Your task to perform on an android device: Open Youtube and go to the subscriptions tab Image 0: 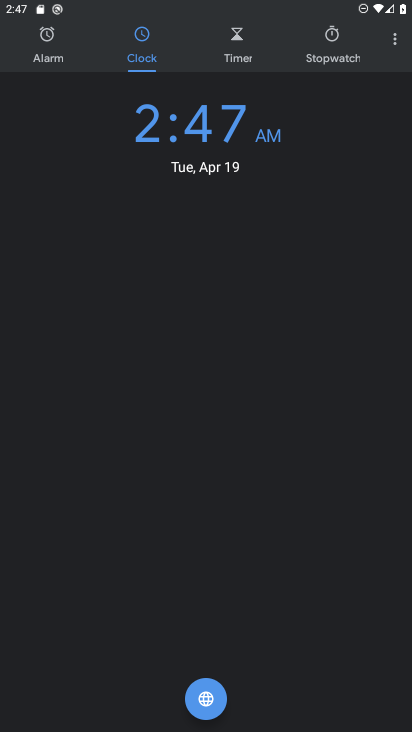
Step 0: press home button
Your task to perform on an android device: Open Youtube and go to the subscriptions tab Image 1: 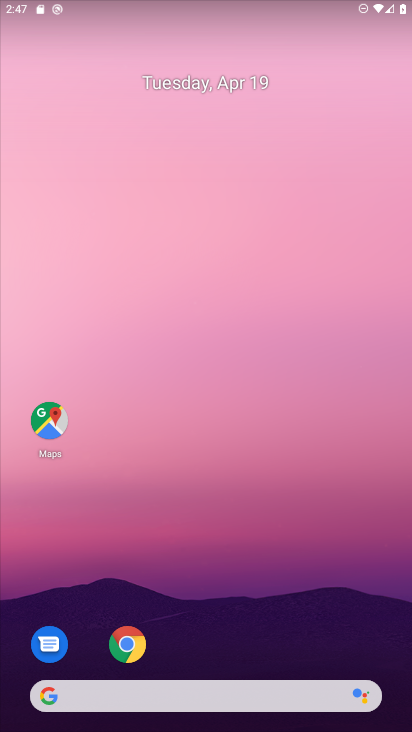
Step 1: drag from (232, 565) to (140, 100)
Your task to perform on an android device: Open Youtube and go to the subscriptions tab Image 2: 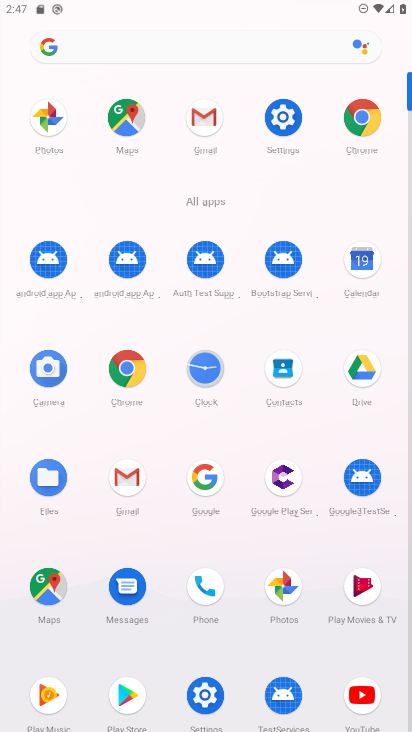
Step 2: click (360, 699)
Your task to perform on an android device: Open Youtube and go to the subscriptions tab Image 3: 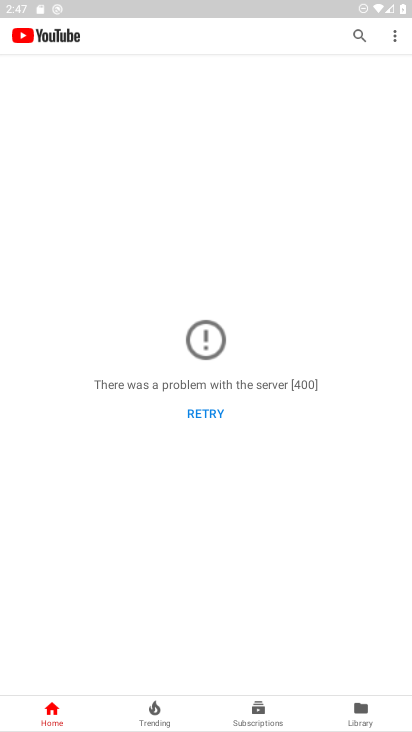
Step 3: click (260, 710)
Your task to perform on an android device: Open Youtube and go to the subscriptions tab Image 4: 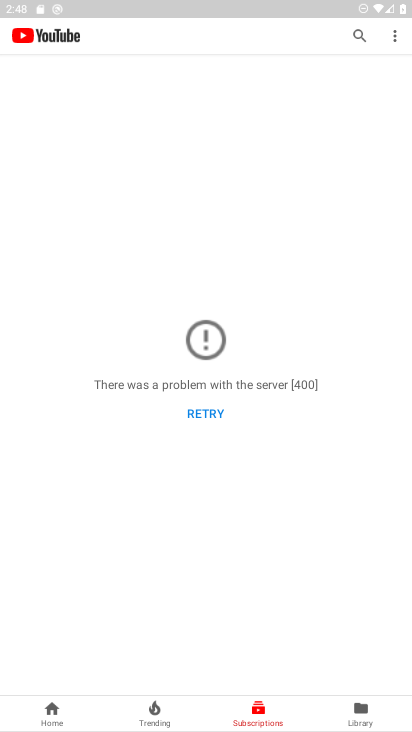
Step 4: task complete